Your task to perform on an android device: Open battery settings Image 0: 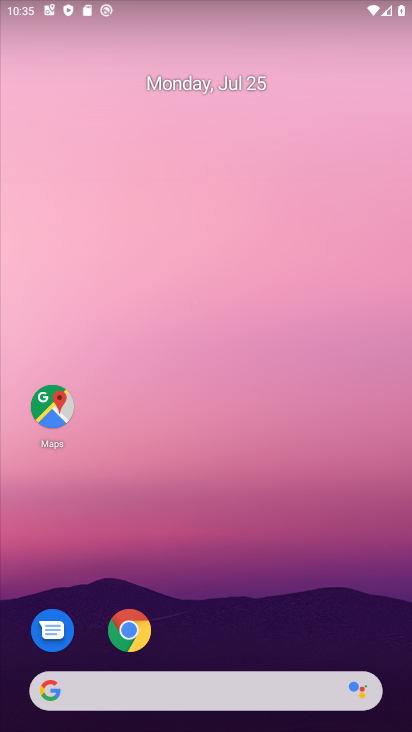
Step 0: press home button
Your task to perform on an android device: Open battery settings Image 1: 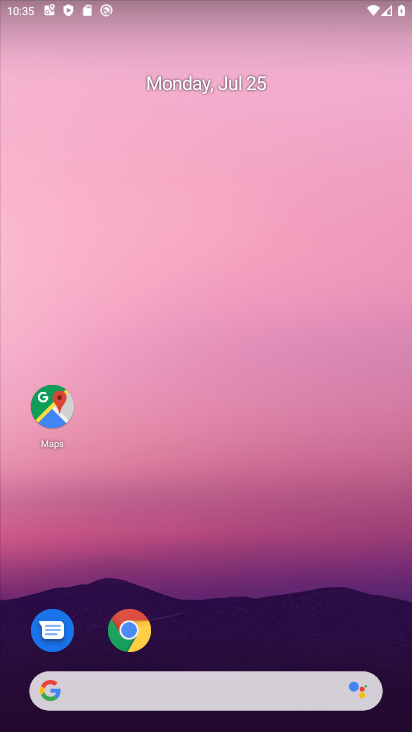
Step 1: drag from (347, 513) to (355, 102)
Your task to perform on an android device: Open battery settings Image 2: 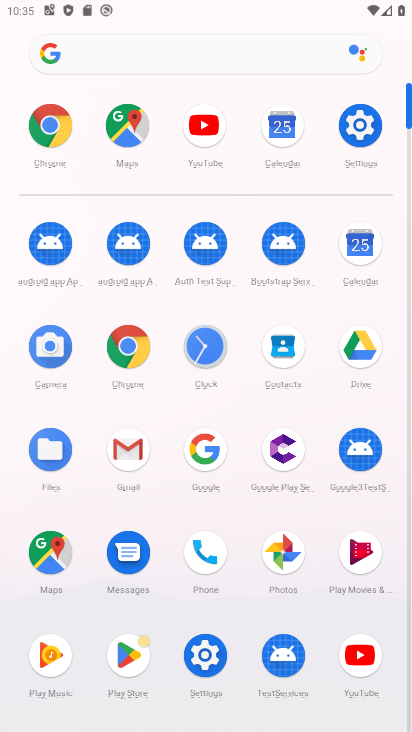
Step 2: click (362, 137)
Your task to perform on an android device: Open battery settings Image 3: 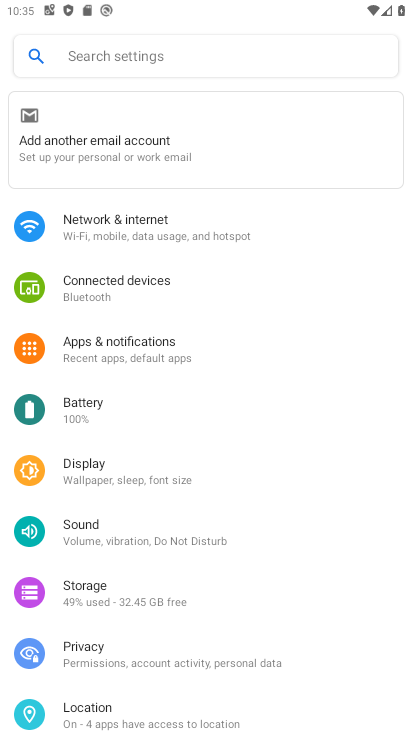
Step 3: drag from (323, 390) to (321, 252)
Your task to perform on an android device: Open battery settings Image 4: 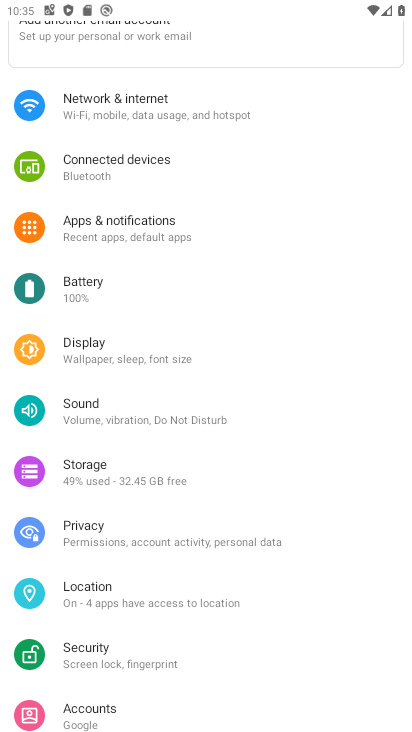
Step 4: drag from (317, 444) to (330, 313)
Your task to perform on an android device: Open battery settings Image 5: 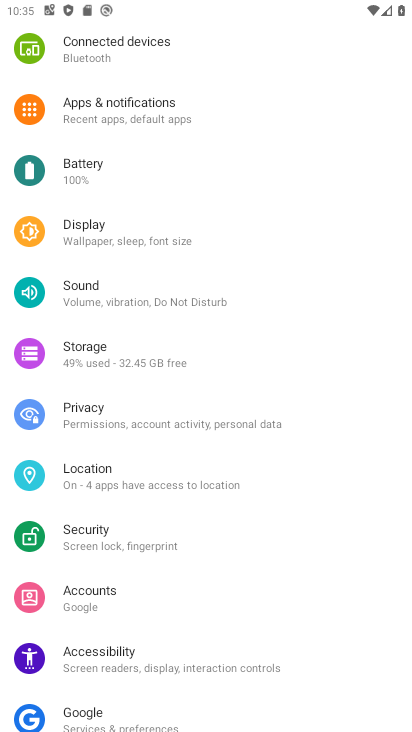
Step 5: drag from (342, 478) to (350, 352)
Your task to perform on an android device: Open battery settings Image 6: 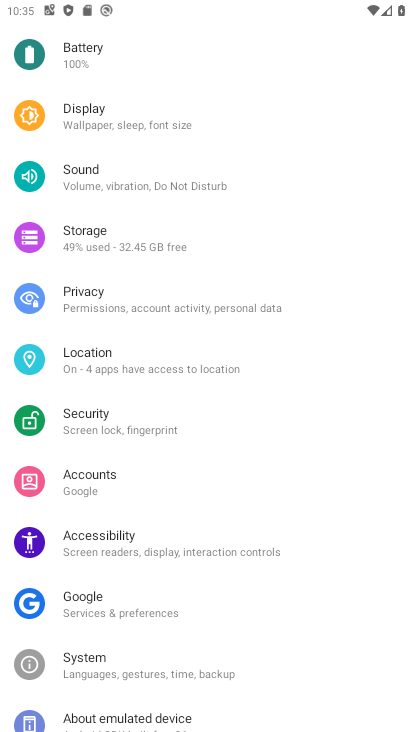
Step 6: drag from (349, 506) to (353, 393)
Your task to perform on an android device: Open battery settings Image 7: 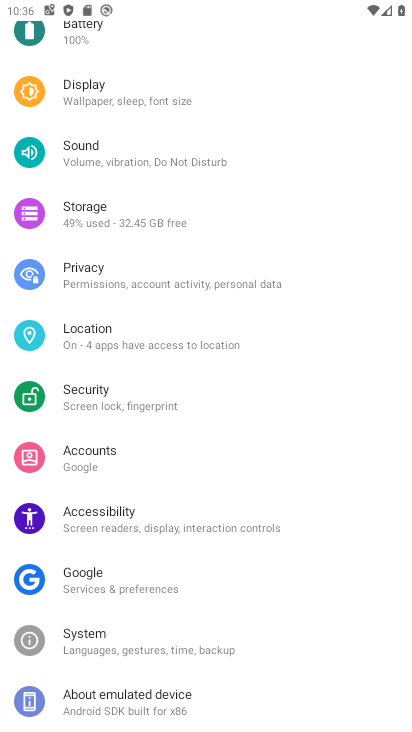
Step 7: drag from (347, 294) to (351, 402)
Your task to perform on an android device: Open battery settings Image 8: 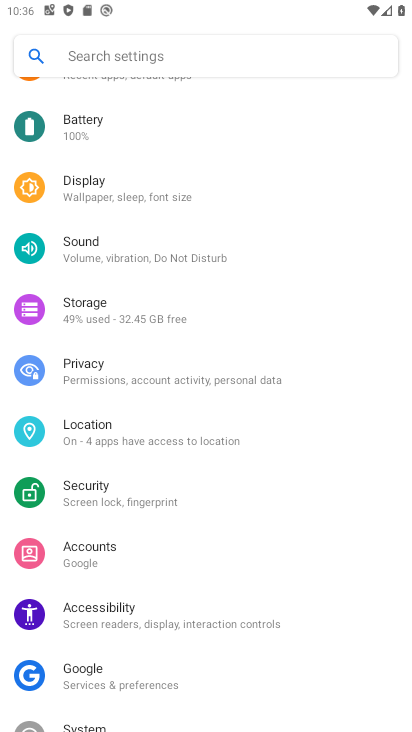
Step 8: drag from (337, 260) to (336, 369)
Your task to perform on an android device: Open battery settings Image 9: 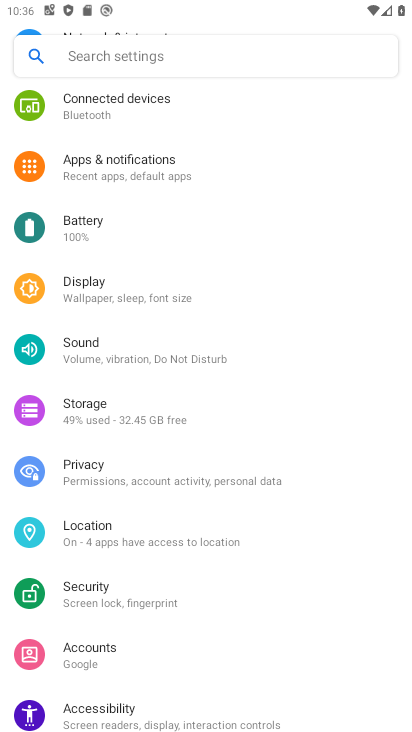
Step 9: drag from (319, 237) to (334, 417)
Your task to perform on an android device: Open battery settings Image 10: 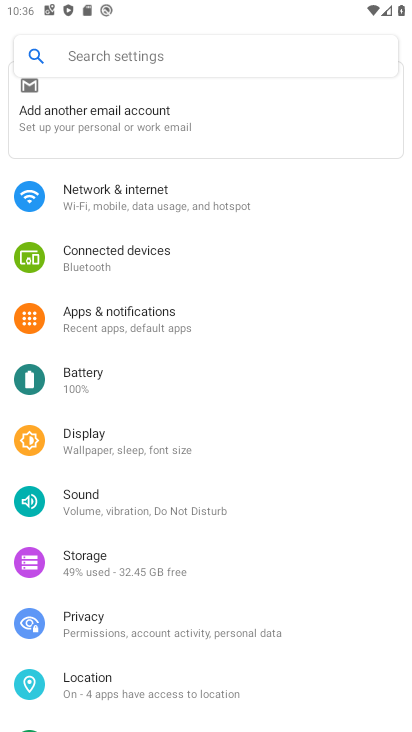
Step 10: drag from (309, 212) to (326, 364)
Your task to perform on an android device: Open battery settings Image 11: 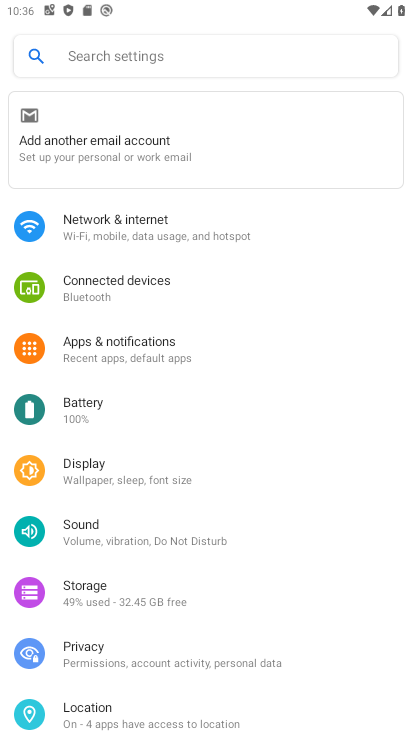
Step 11: click (170, 408)
Your task to perform on an android device: Open battery settings Image 12: 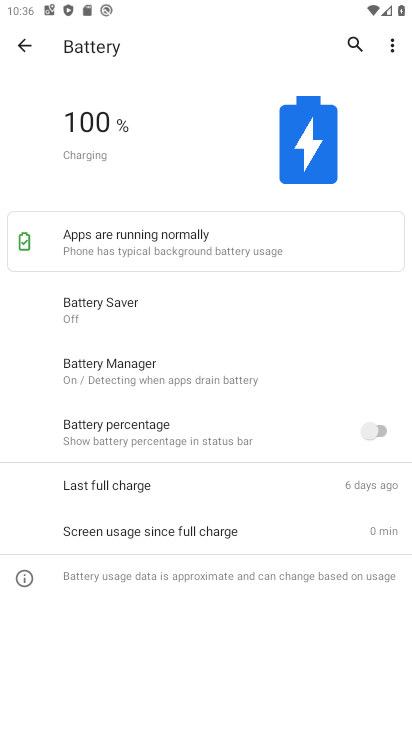
Step 12: task complete